Your task to perform on an android device: turn off notifications settings in the gmail app Image 0: 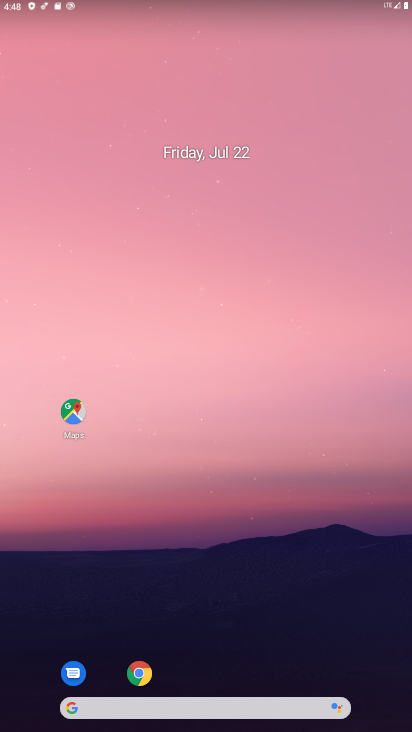
Step 0: press home button
Your task to perform on an android device: turn off notifications settings in the gmail app Image 1: 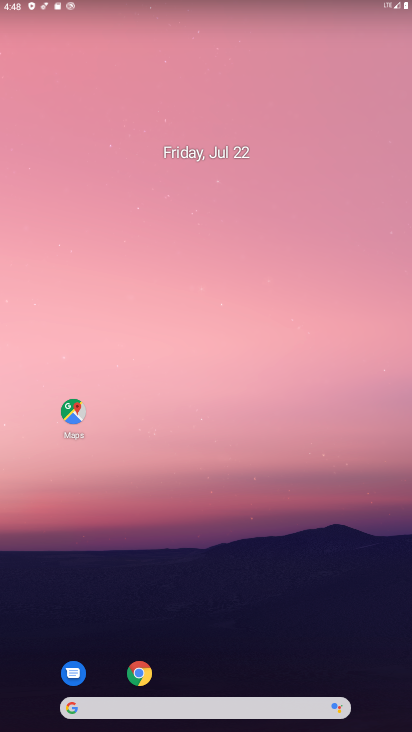
Step 1: drag from (254, 629) to (292, 84)
Your task to perform on an android device: turn off notifications settings in the gmail app Image 2: 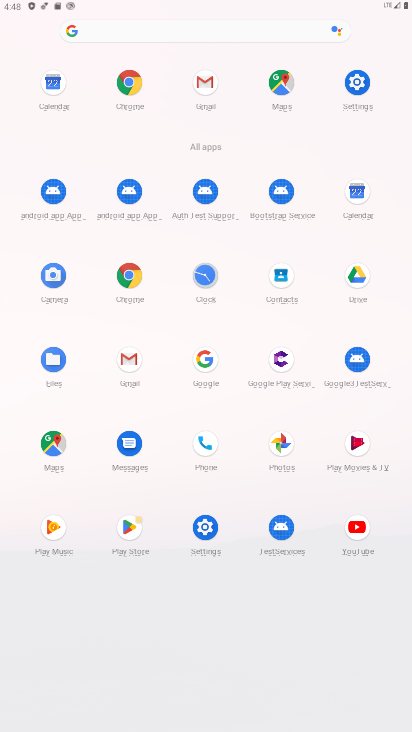
Step 2: click (203, 83)
Your task to perform on an android device: turn off notifications settings in the gmail app Image 3: 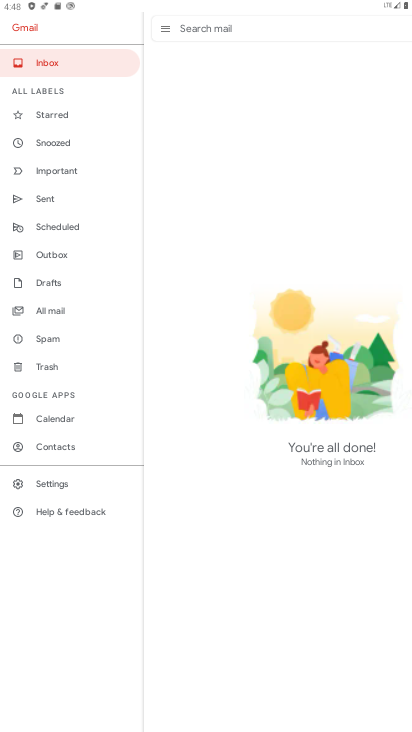
Step 3: click (68, 487)
Your task to perform on an android device: turn off notifications settings in the gmail app Image 4: 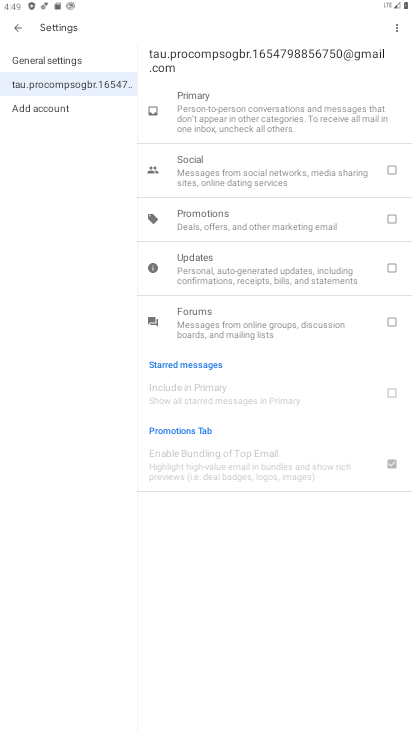
Step 4: click (16, 23)
Your task to perform on an android device: turn off notifications settings in the gmail app Image 5: 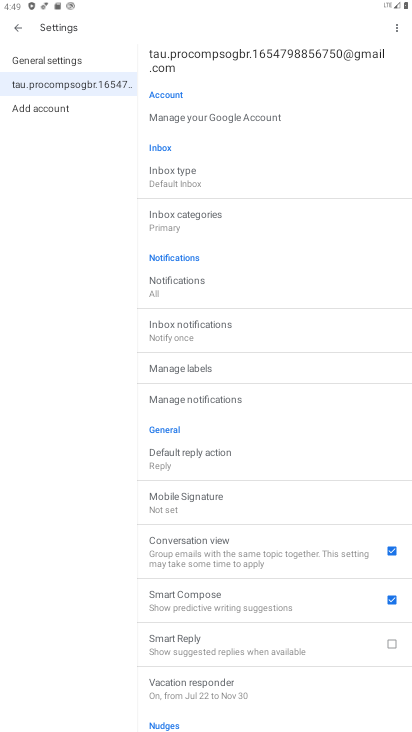
Step 5: click (174, 402)
Your task to perform on an android device: turn off notifications settings in the gmail app Image 6: 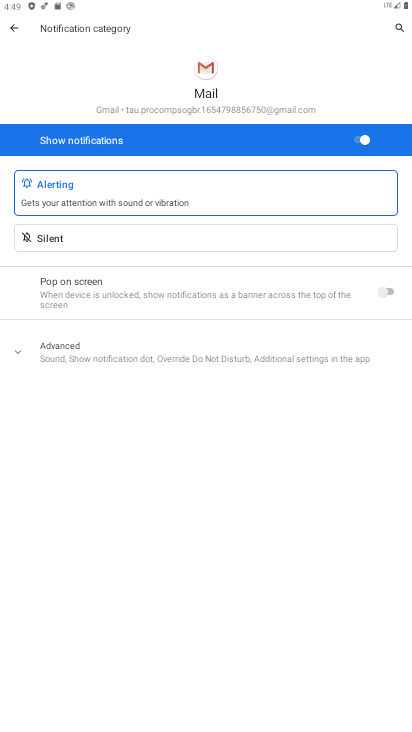
Step 6: click (359, 142)
Your task to perform on an android device: turn off notifications settings in the gmail app Image 7: 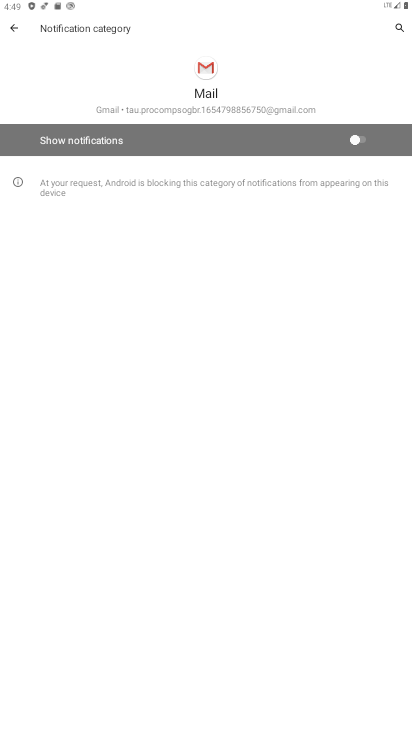
Step 7: task complete